Your task to perform on an android device: empty trash in google photos Image 0: 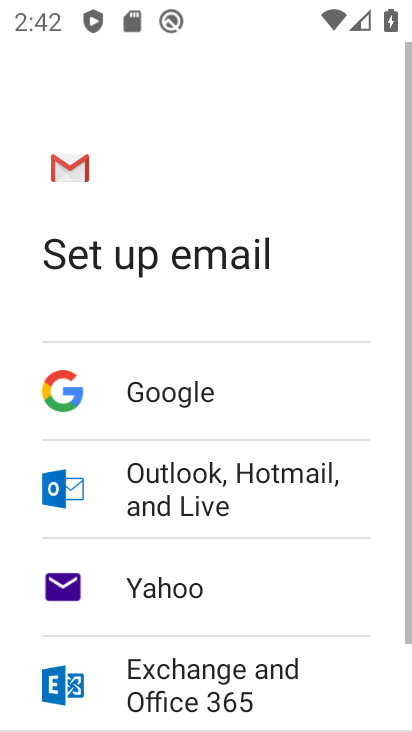
Step 0: press home button
Your task to perform on an android device: empty trash in google photos Image 1: 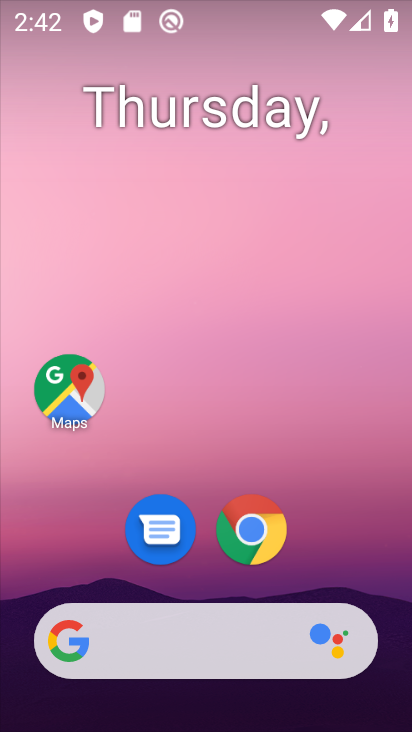
Step 1: drag from (199, 568) to (203, 0)
Your task to perform on an android device: empty trash in google photos Image 2: 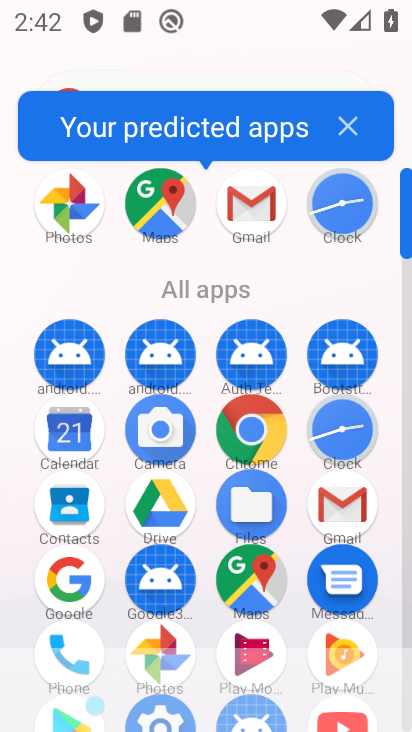
Step 2: drag from (201, 525) to (203, 297)
Your task to perform on an android device: empty trash in google photos Image 3: 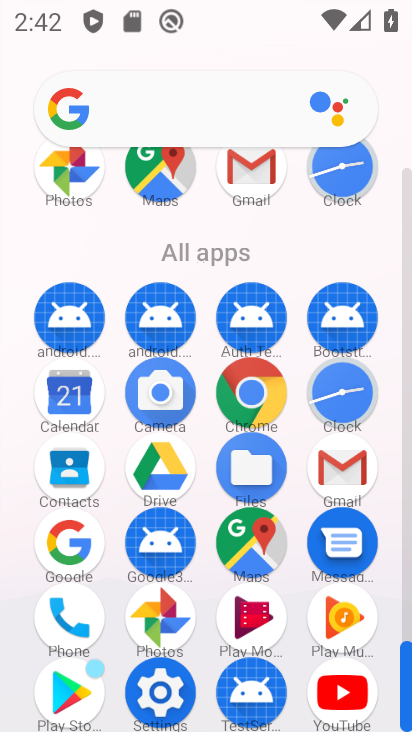
Step 3: click (146, 608)
Your task to perform on an android device: empty trash in google photos Image 4: 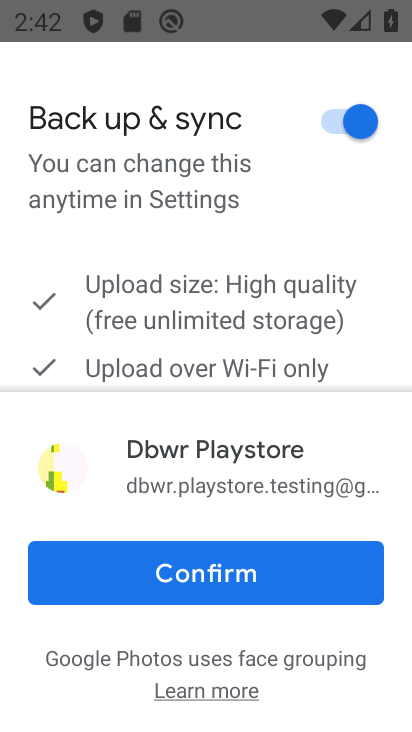
Step 4: click (196, 565)
Your task to perform on an android device: empty trash in google photos Image 5: 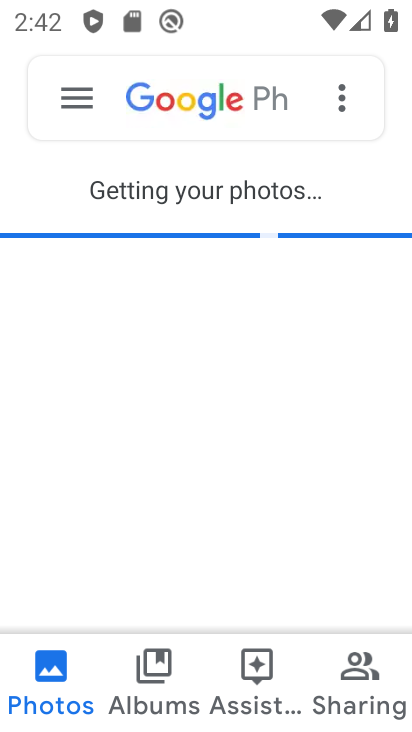
Step 5: click (86, 95)
Your task to perform on an android device: empty trash in google photos Image 6: 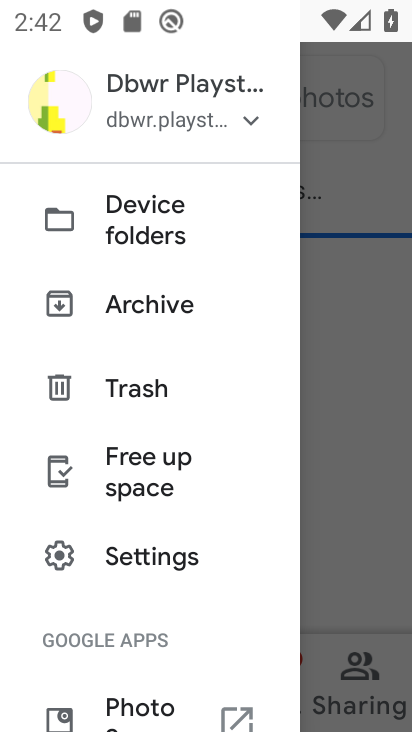
Step 6: click (121, 394)
Your task to perform on an android device: empty trash in google photos Image 7: 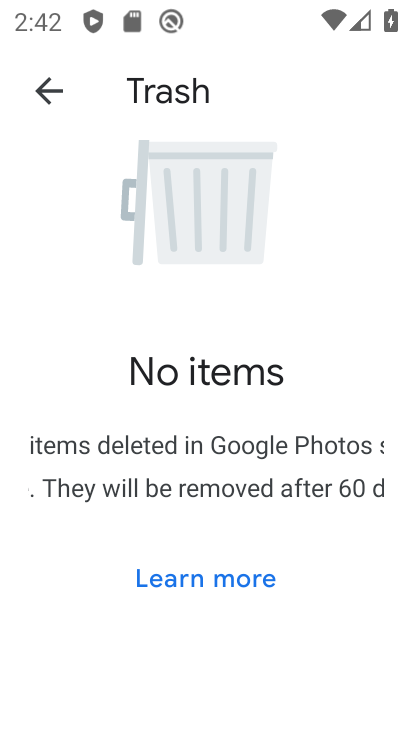
Step 7: task complete